Your task to perform on an android device: turn off location history Image 0: 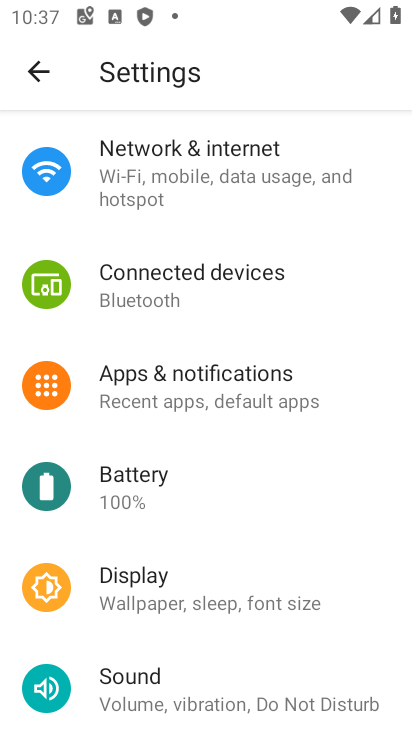
Step 0: drag from (237, 622) to (273, 110)
Your task to perform on an android device: turn off location history Image 1: 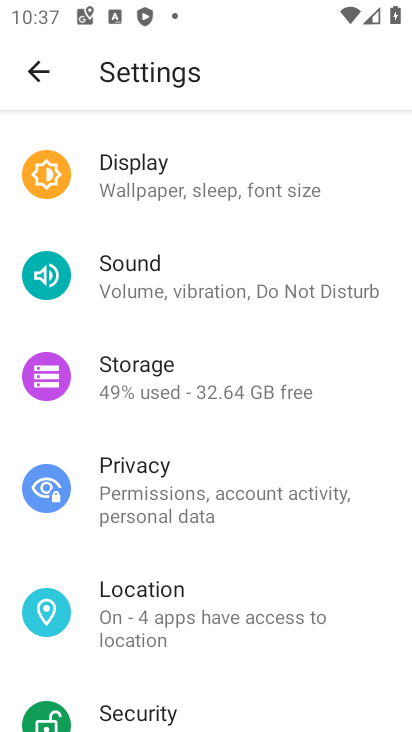
Step 1: click (180, 598)
Your task to perform on an android device: turn off location history Image 2: 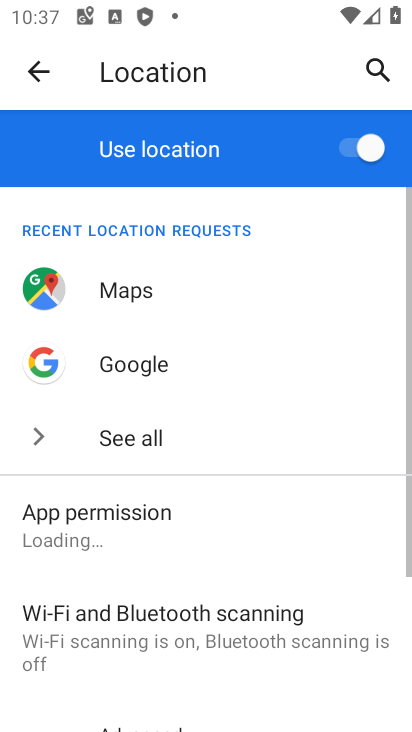
Step 2: drag from (180, 604) to (219, 237)
Your task to perform on an android device: turn off location history Image 3: 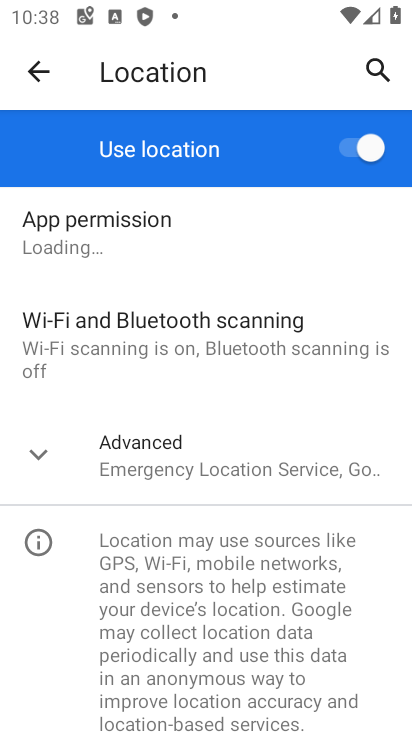
Step 3: click (157, 448)
Your task to perform on an android device: turn off location history Image 4: 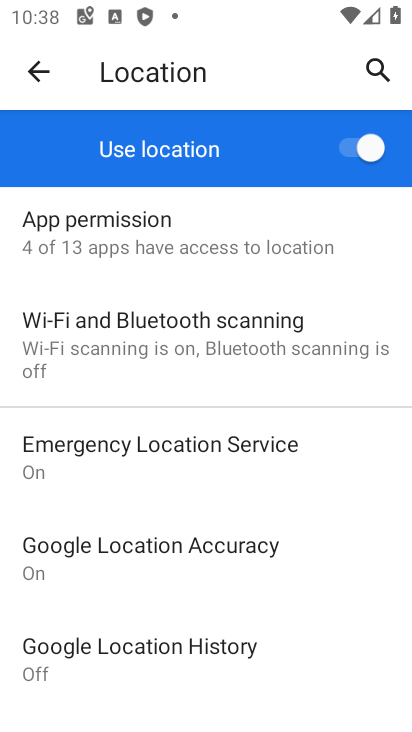
Step 4: drag from (186, 540) to (217, 339)
Your task to perform on an android device: turn off location history Image 5: 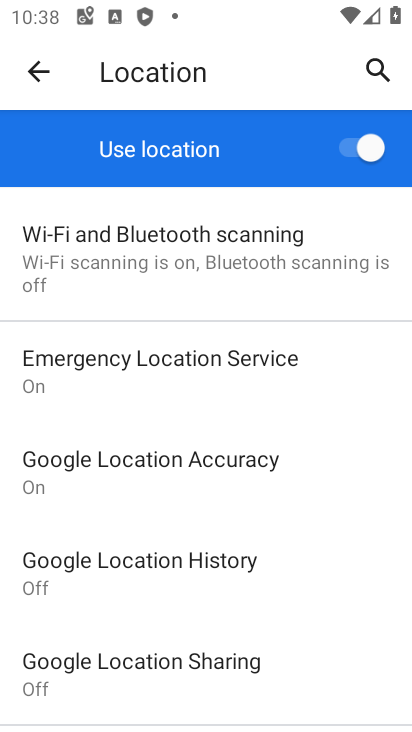
Step 5: click (184, 566)
Your task to perform on an android device: turn off location history Image 6: 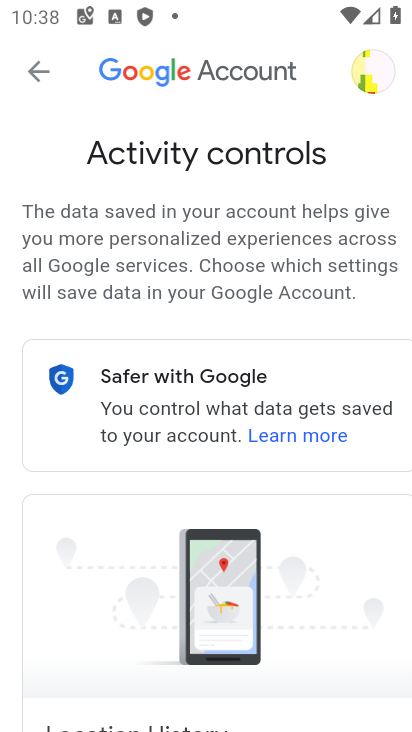
Step 6: drag from (301, 512) to (150, 17)
Your task to perform on an android device: turn off location history Image 7: 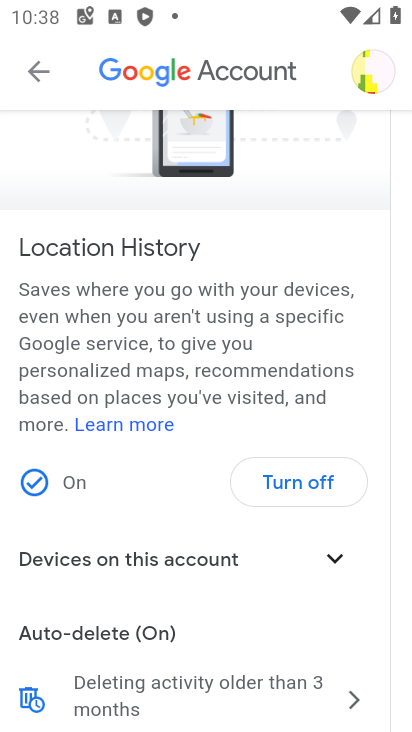
Step 7: click (285, 481)
Your task to perform on an android device: turn off location history Image 8: 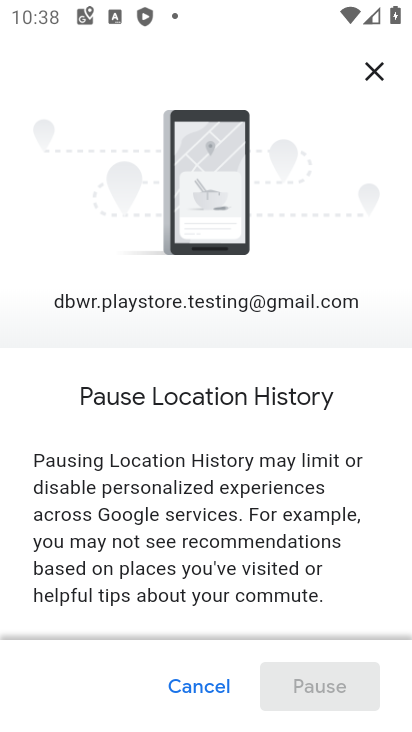
Step 8: click (360, 75)
Your task to perform on an android device: turn off location history Image 9: 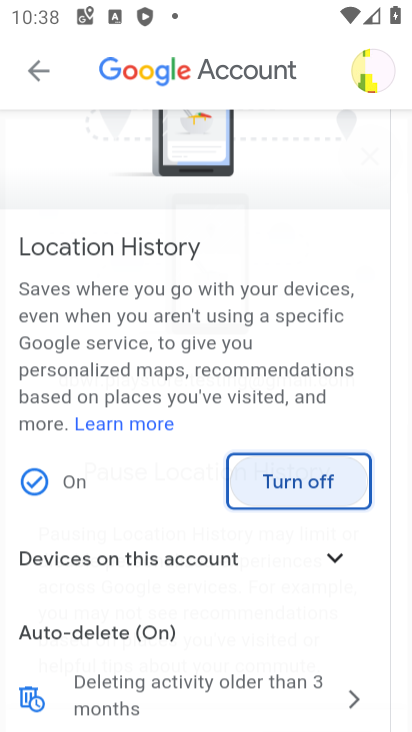
Step 9: drag from (271, 514) to (302, 168)
Your task to perform on an android device: turn off location history Image 10: 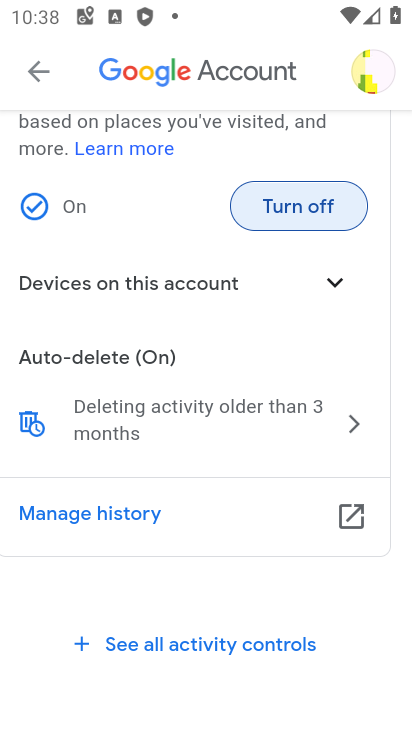
Step 10: click (316, 208)
Your task to perform on an android device: turn off location history Image 11: 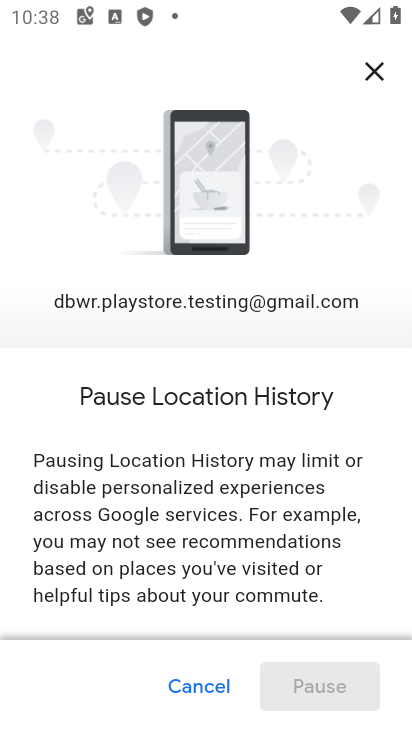
Step 11: drag from (255, 522) to (328, 135)
Your task to perform on an android device: turn off location history Image 12: 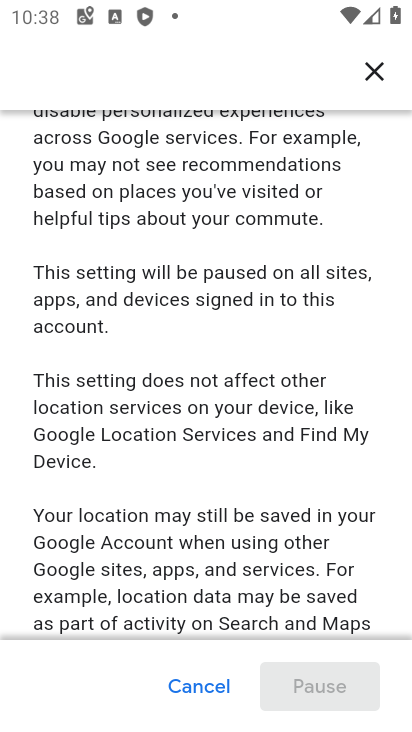
Step 12: drag from (265, 458) to (309, 0)
Your task to perform on an android device: turn off location history Image 13: 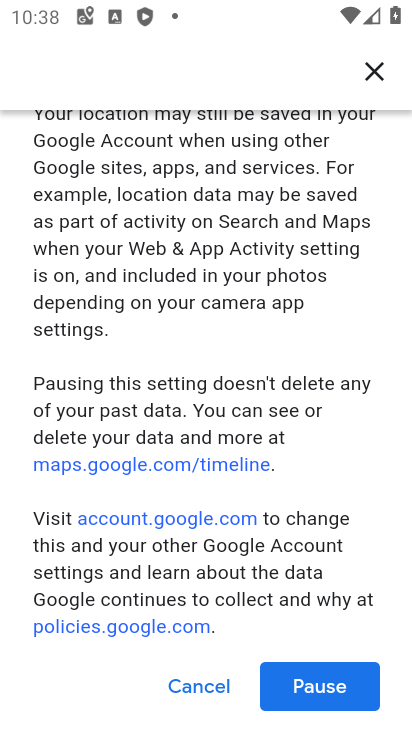
Step 13: click (338, 683)
Your task to perform on an android device: turn off location history Image 14: 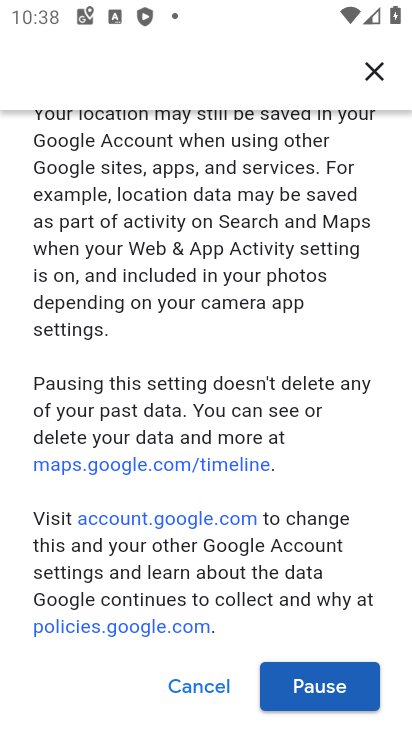
Step 14: click (315, 699)
Your task to perform on an android device: turn off location history Image 15: 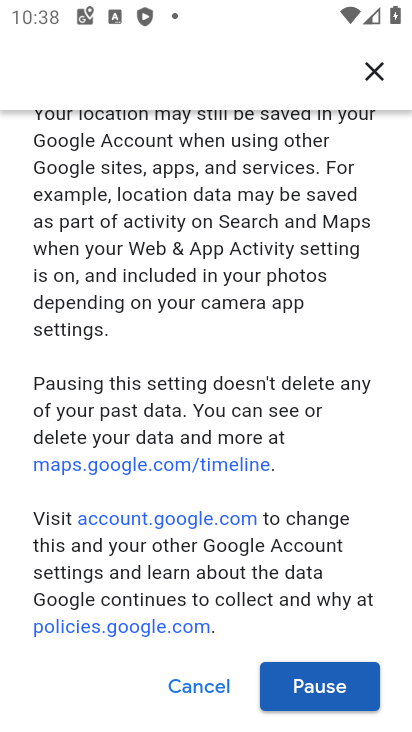
Step 15: click (321, 680)
Your task to perform on an android device: turn off location history Image 16: 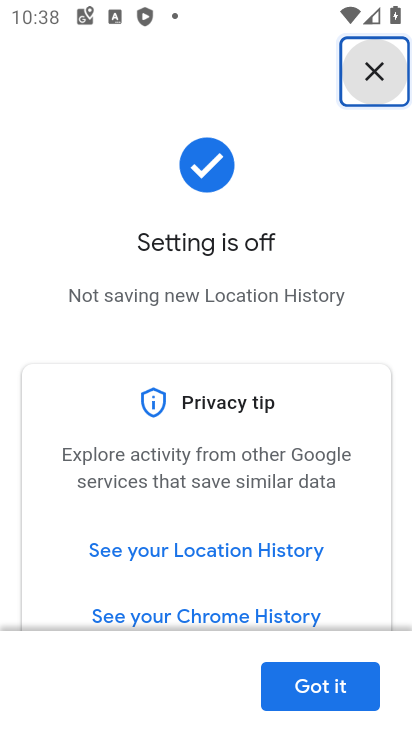
Step 16: task complete